Your task to perform on an android device: Open network settings Image 0: 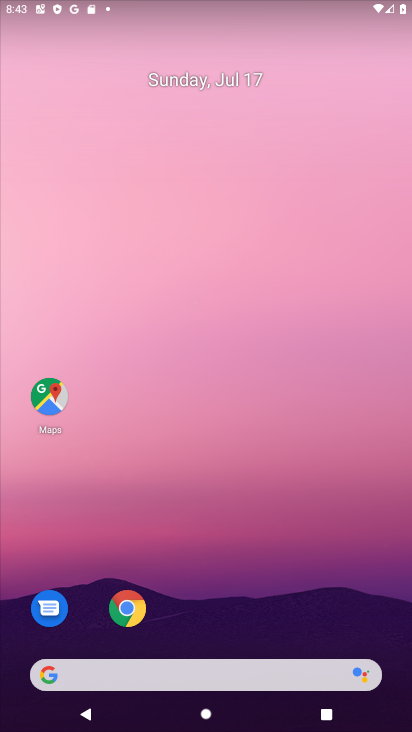
Step 0: drag from (138, 662) to (210, 221)
Your task to perform on an android device: Open network settings Image 1: 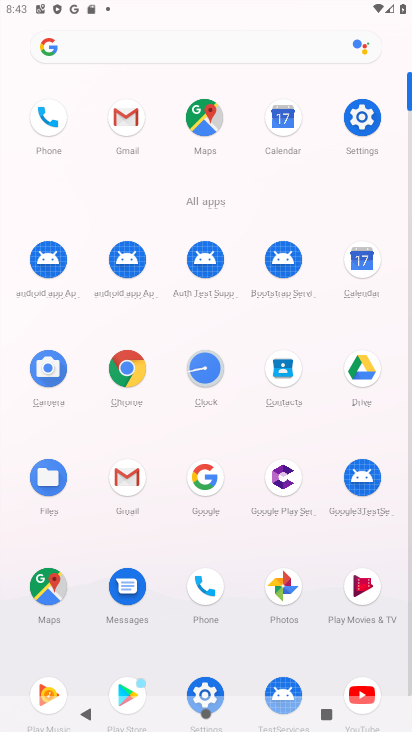
Step 1: click (365, 110)
Your task to perform on an android device: Open network settings Image 2: 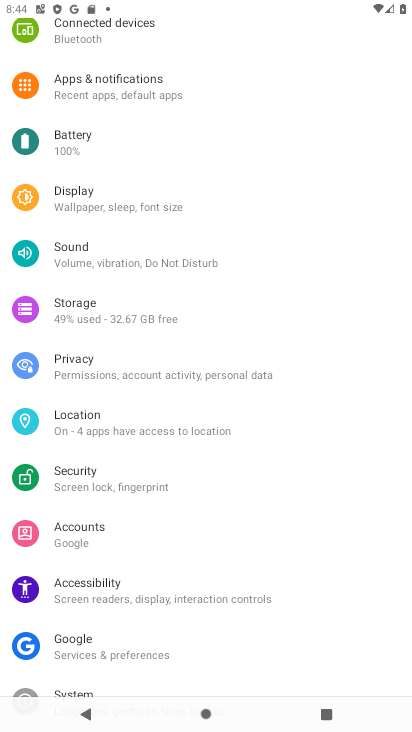
Step 2: drag from (81, 43) to (64, 462)
Your task to perform on an android device: Open network settings Image 3: 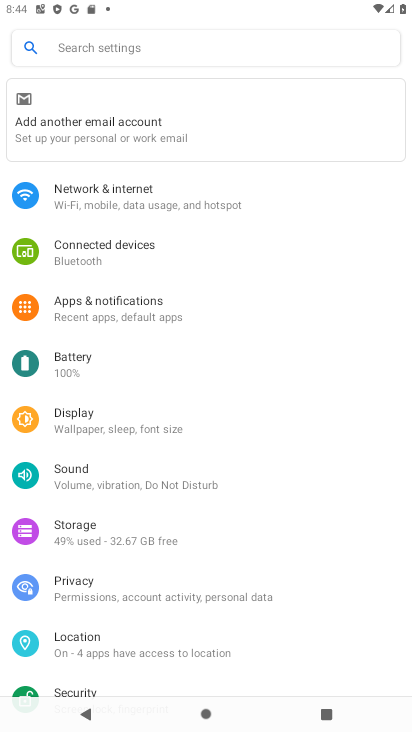
Step 3: click (113, 198)
Your task to perform on an android device: Open network settings Image 4: 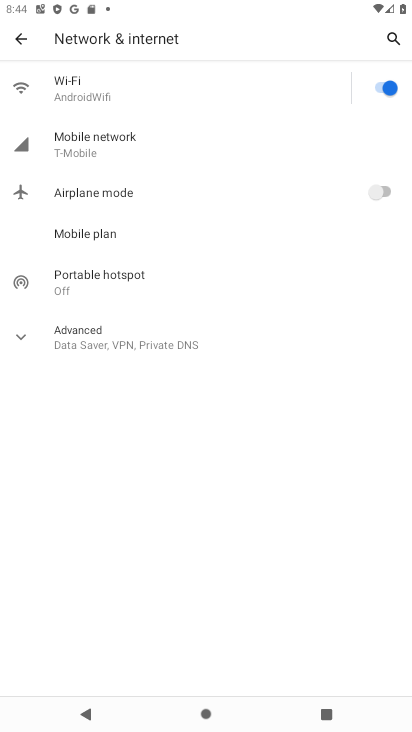
Step 4: click (96, 338)
Your task to perform on an android device: Open network settings Image 5: 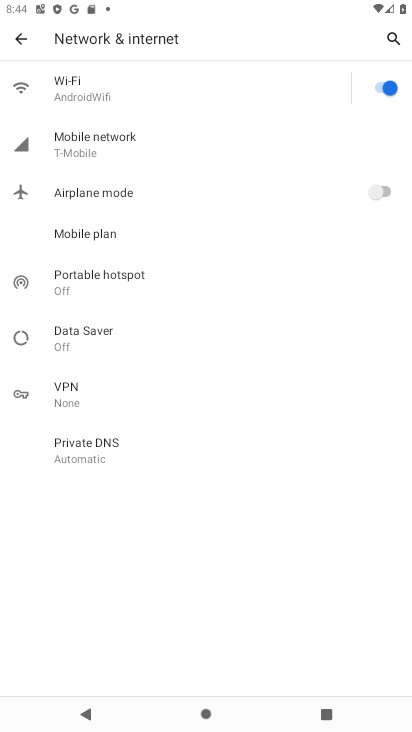
Step 5: task complete